Your task to perform on an android device: Open Yahoo.com Image 0: 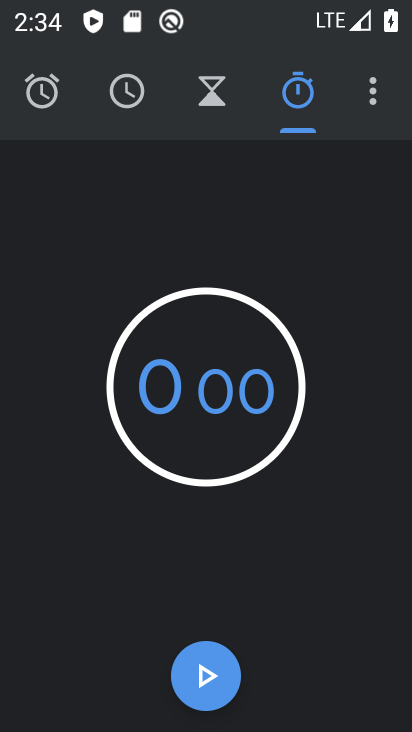
Step 0: press home button
Your task to perform on an android device: Open Yahoo.com Image 1: 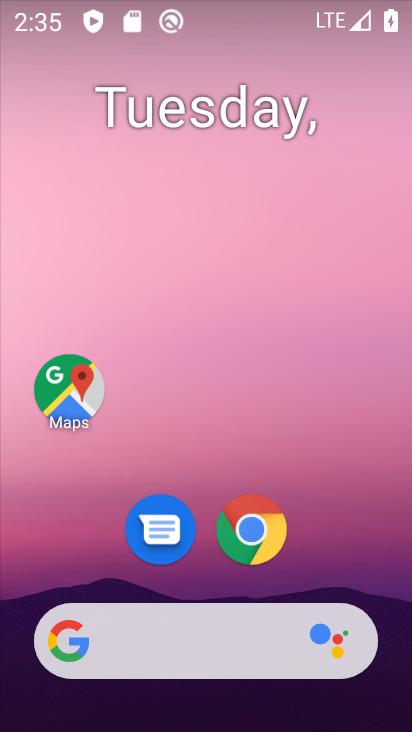
Step 1: drag from (396, 619) to (325, 118)
Your task to perform on an android device: Open Yahoo.com Image 2: 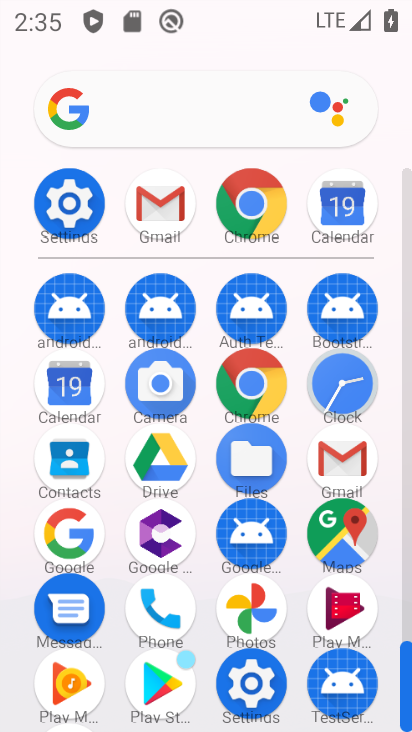
Step 2: click (243, 398)
Your task to perform on an android device: Open Yahoo.com Image 3: 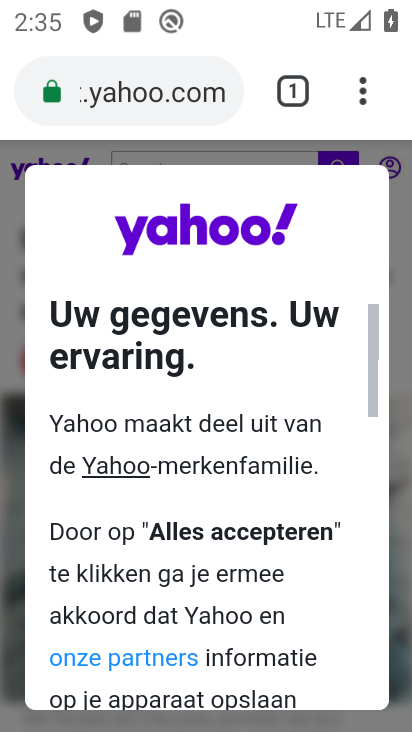
Step 3: press back button
Your task to perform on an android device: Open Yahoo.com Image 4: 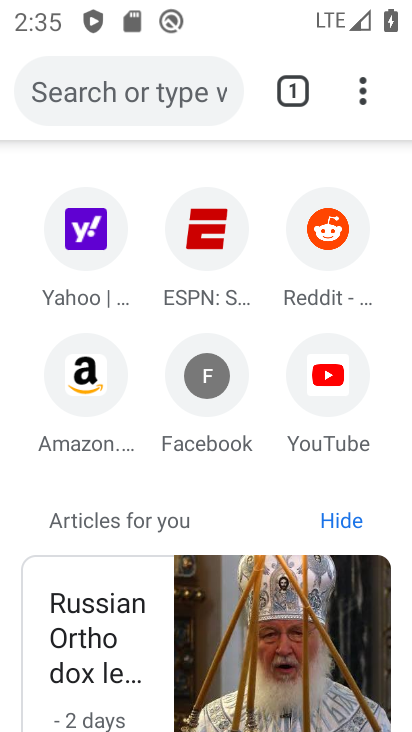
Step 4: click (87, 257)
Your task to perform on an android device: Open Yahoo.com Image 5: 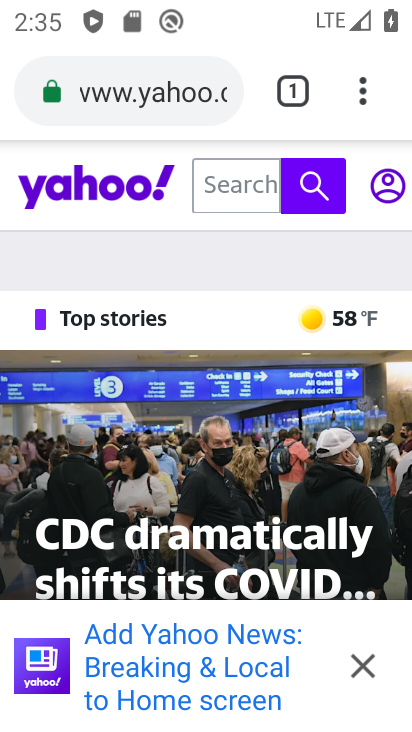
Step 5: task complete